Your task to perform on an android device: Set the phone to "Do not disturb". Image 0: 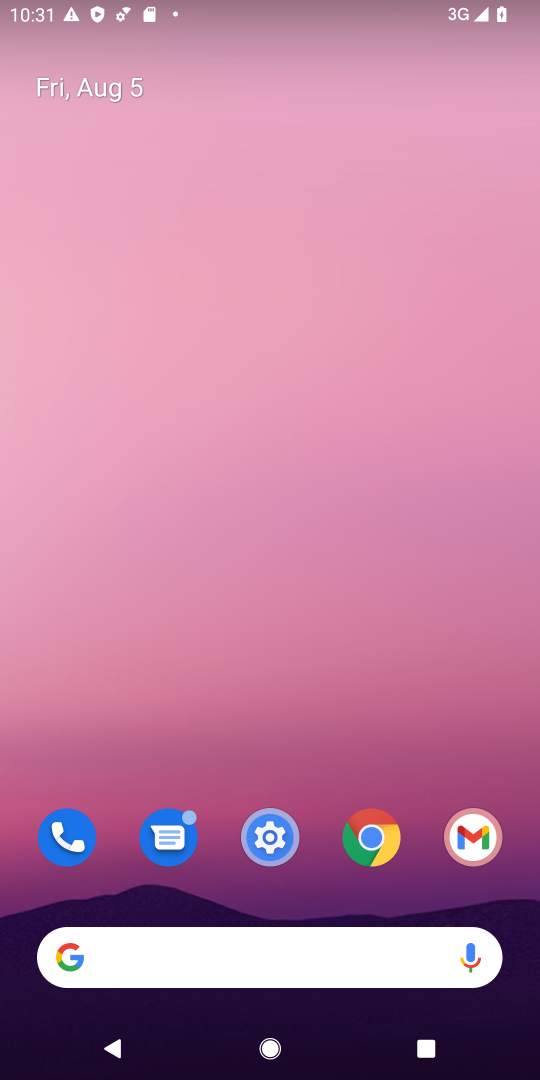
Step 0: drag from (307, 750) to (337, 64)
Your task to perform on an android device: Set the phone to "Do not disturb". Image 1: 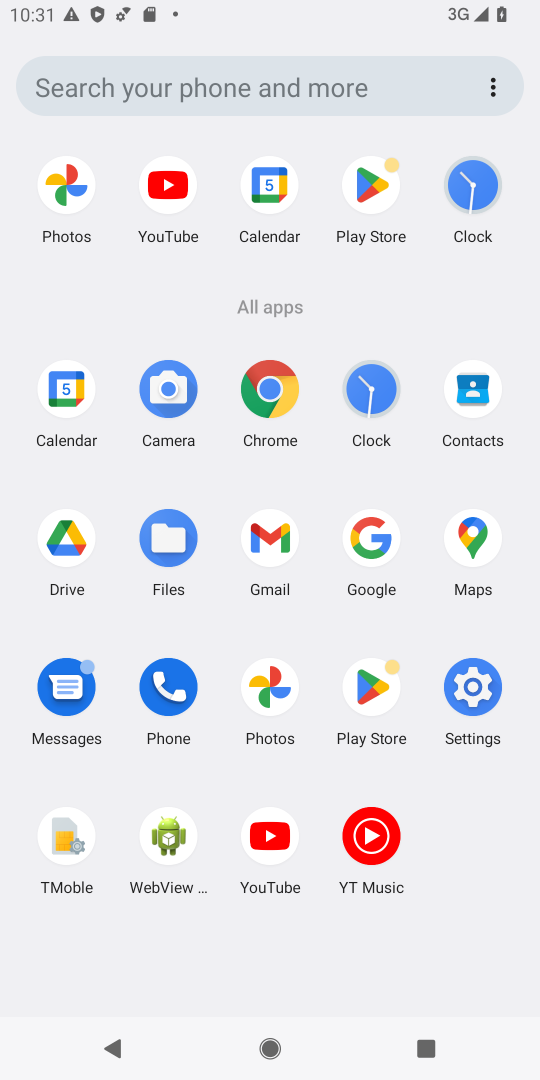
Step 1: click (465, 681)
Your task to perform on an android device: Set the phone to "Do not disturb". Image 2: 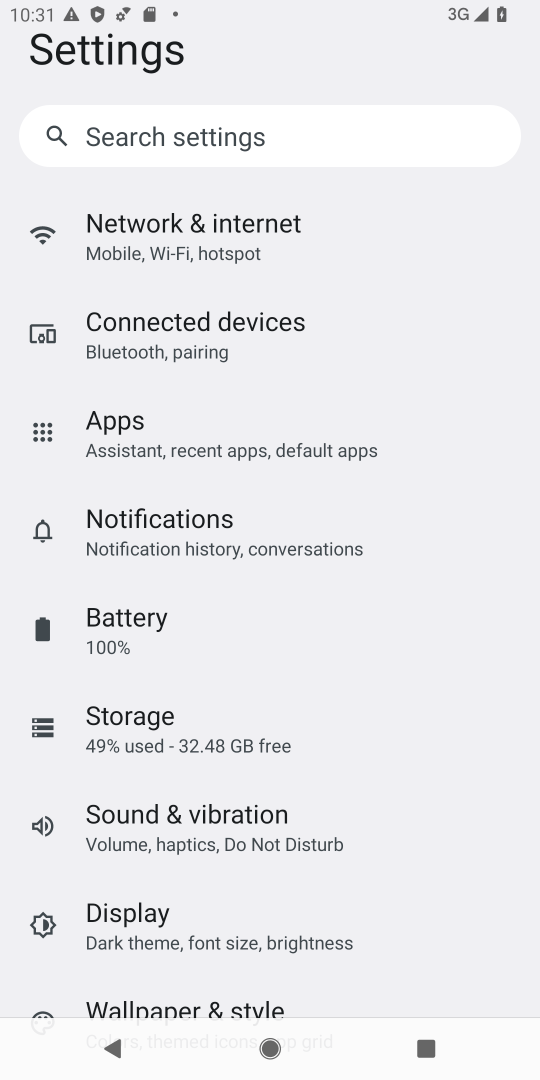
Step 2: click (251, 817)
Your task to perform on an android device: Set the phone to "Do not disturb". Image 3: 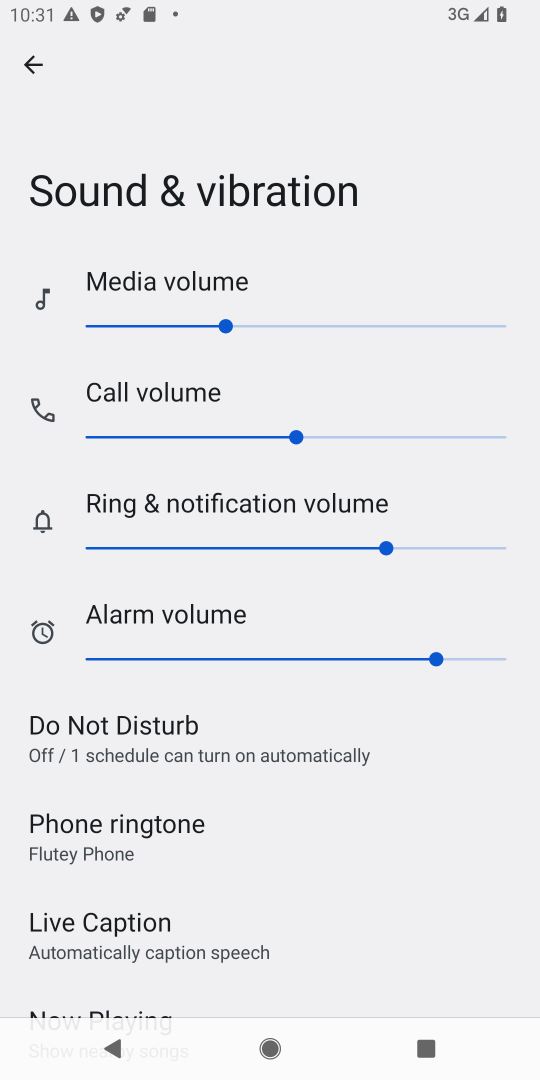
Step 3: click (253, 757)
Your task to perform on an android device: Set the phone to "Do not disturb". Image 4: 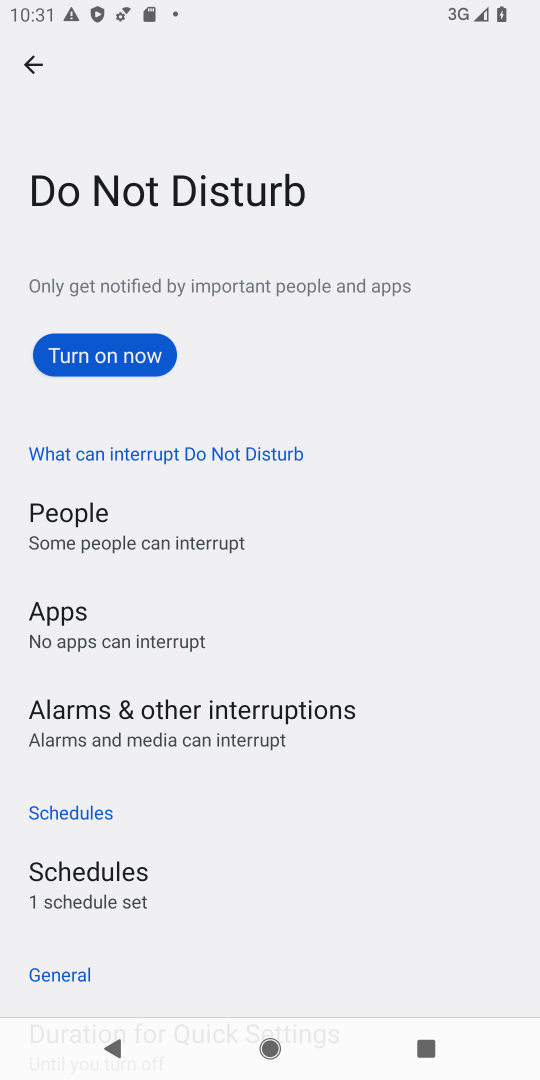
Step 4: click (142, 357)
Your task to perform on an android device: Set the phone to "Do not disturb". Image 5: 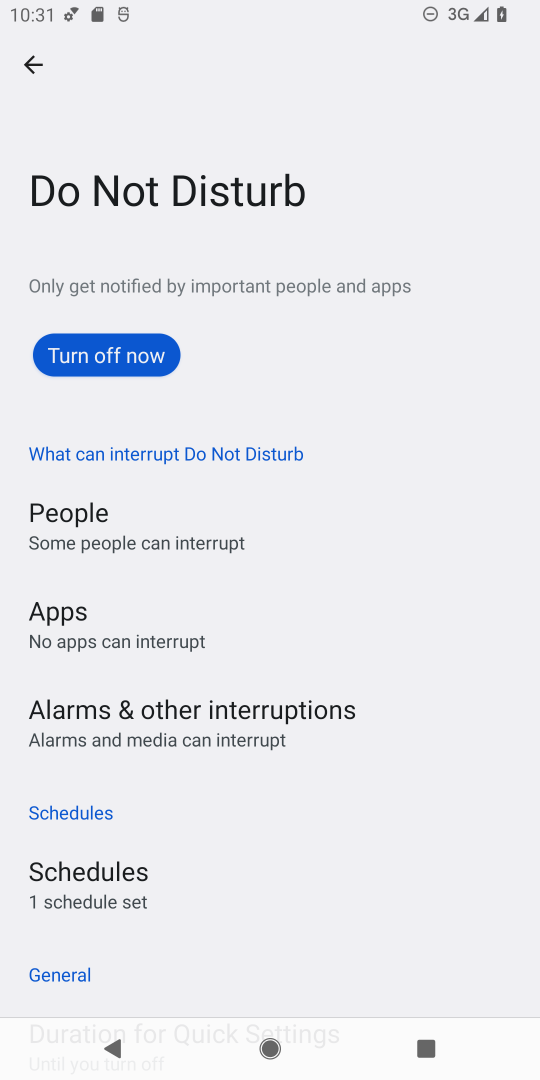
Step 5: task complete